Your task to perform on an android device: Set the phone to "Do not disturb". Image 0: 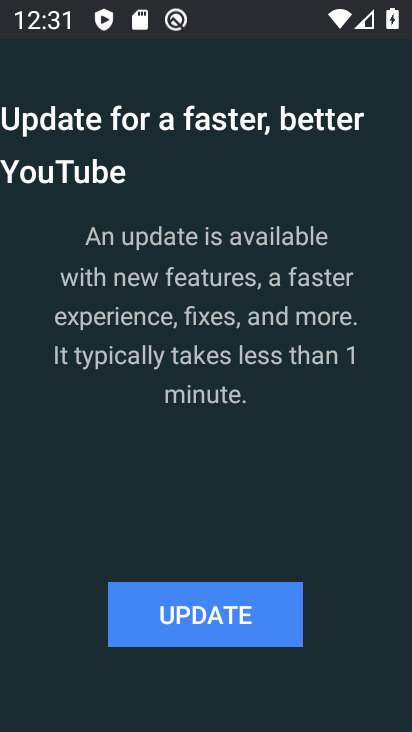
Step 0: press home button
Your task to perform on an android device: Set the phone to "Do not disturb". Image 1: 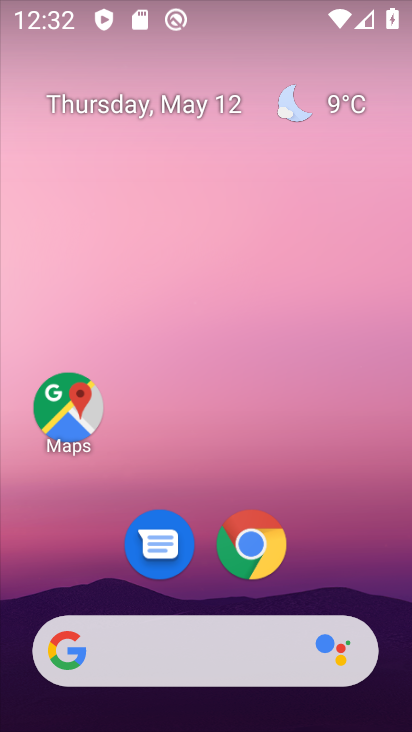
Step 1: drag from (187, 725) to (193, 75)
Your task to perform on an android device: Set the phone to "Do not disturb". Image 2: 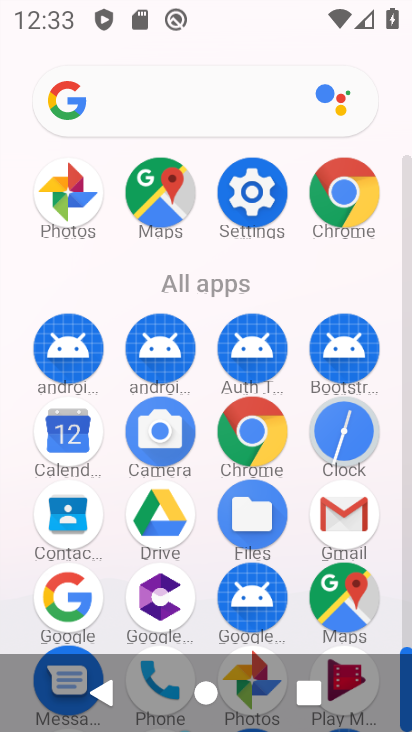
Step 2: click (247, 182)
Your task to perform on an android device: Set the phone to "Do not disturb". Image 3: 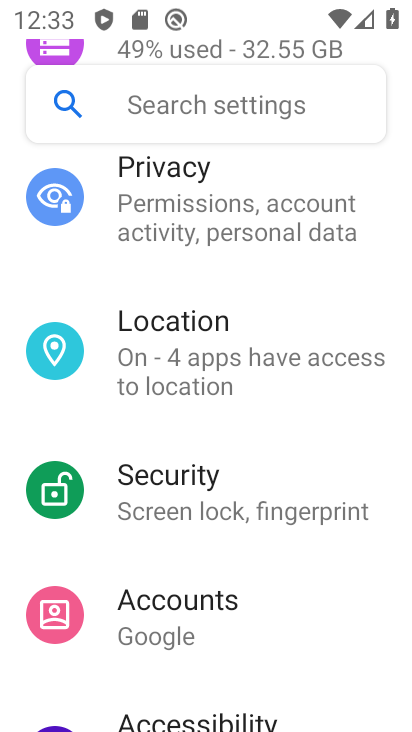
Step 3: drag from (203, 664) to (222, 245)
Your task to perform on an android device: Set the phone to "Do not disturb". Image 4: 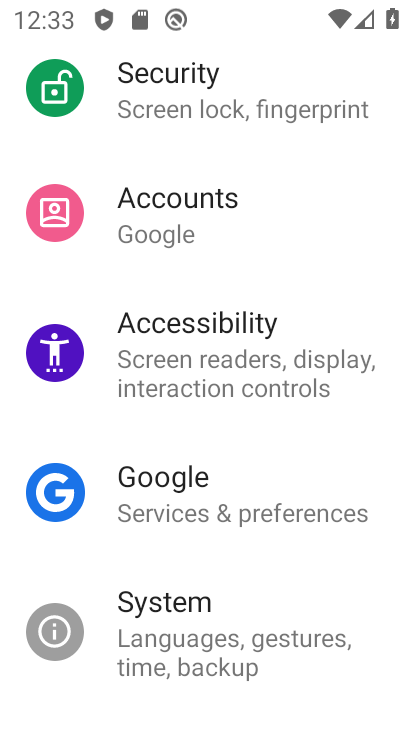
Step 4: drag from (238, 215) to (234, 612)
Your task to perform on an android device: Set the phone to "Do not disturb". Image 5: 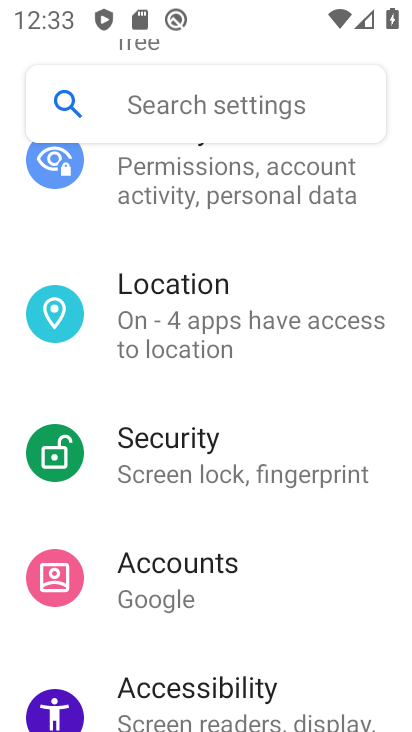
Step 5: drag from (236, 231) to (255, 581)
Your task to perform on an android device: Set the phone to "Do not disturb". Image 6: 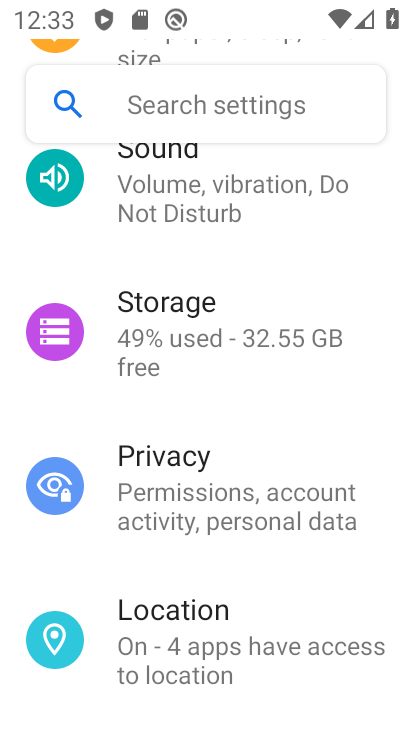
Step 6: click (190, 203)
Your task to perform on an android device: Set the phone to "Do not disturb". Image 7: 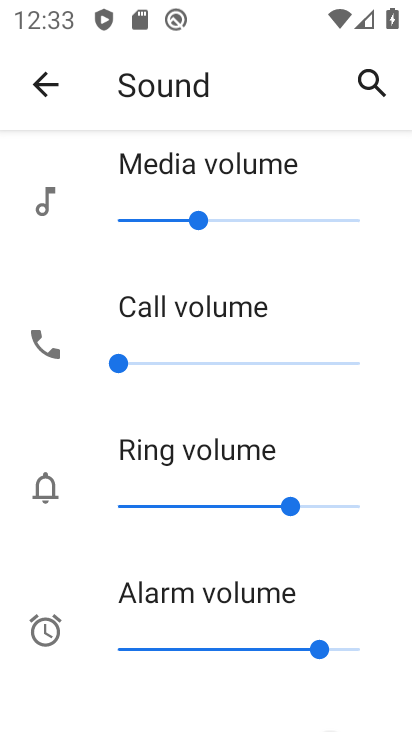
Step 7: drag from (171, 689) to (160, 140)
Your task to perform on an android device: Set the phone to "Do not disturb". Image 8: 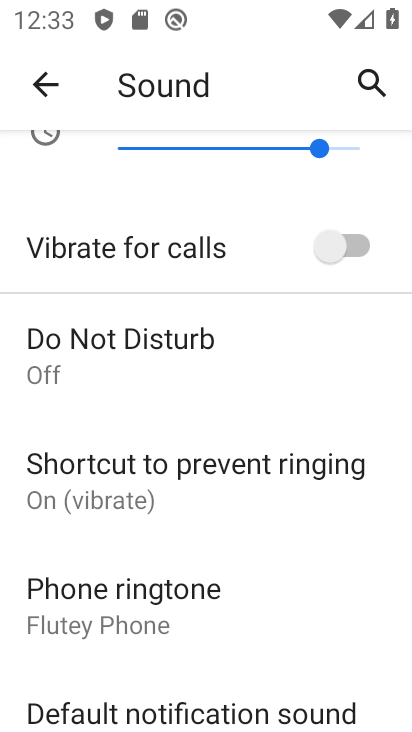
Step 8: drag from (184, 652) to (185, 211)
Your task to perform on an android device: Set the phone to "Do not disturb". Image 9: 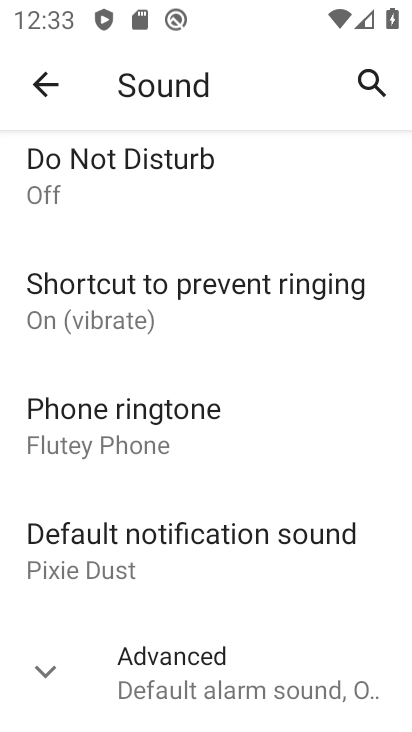
Step 9: click (124, 161)
Your task to perform on an android device: Set the phone to "Do not disturb". Image 10: 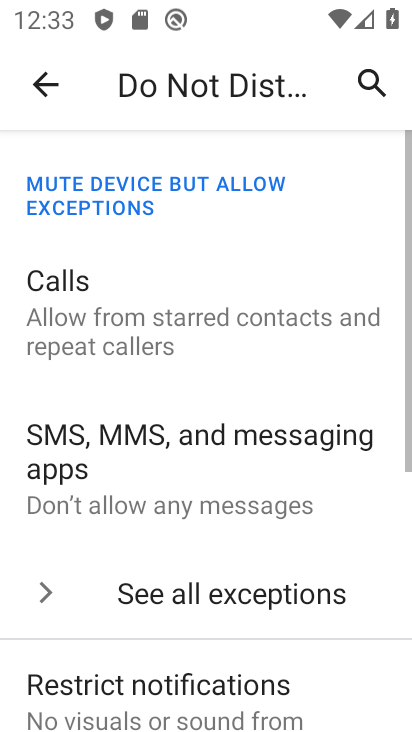
Step 10: drag from (181, 647) to (180, 180)
Your task to perform on an android device: Set the phone to "Do not disturb". Image 11: 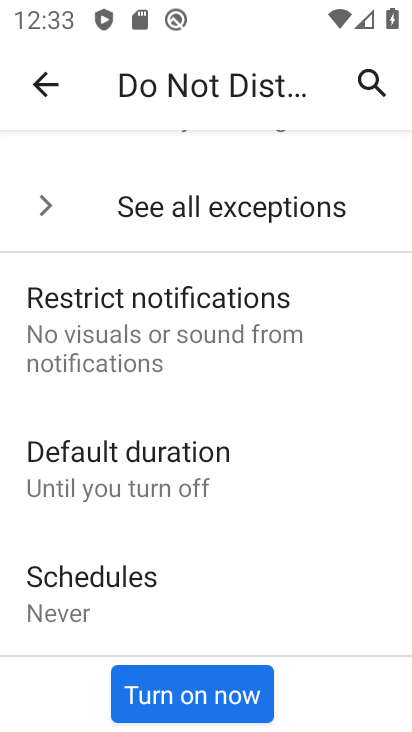
Step 11: click (151, 705)
Your task to perform on an android device: Set the phone to "Do not disturb". Image 12: 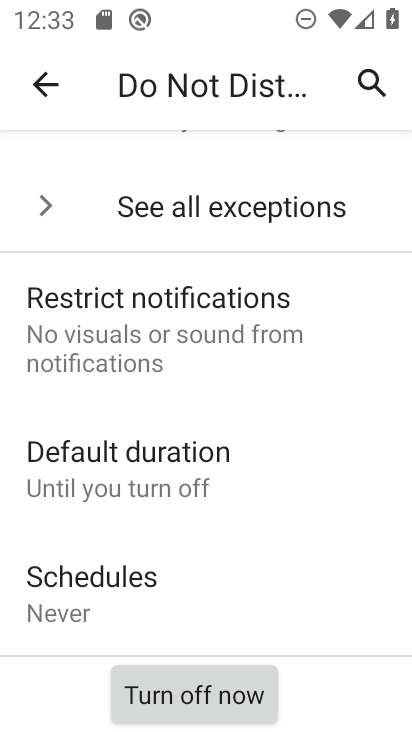
Step 12: task complete